Your task to perform on an android device: Search for "corsair k70" on walmart, select the first entry, add it to the cart, then select checkout. Image 0: 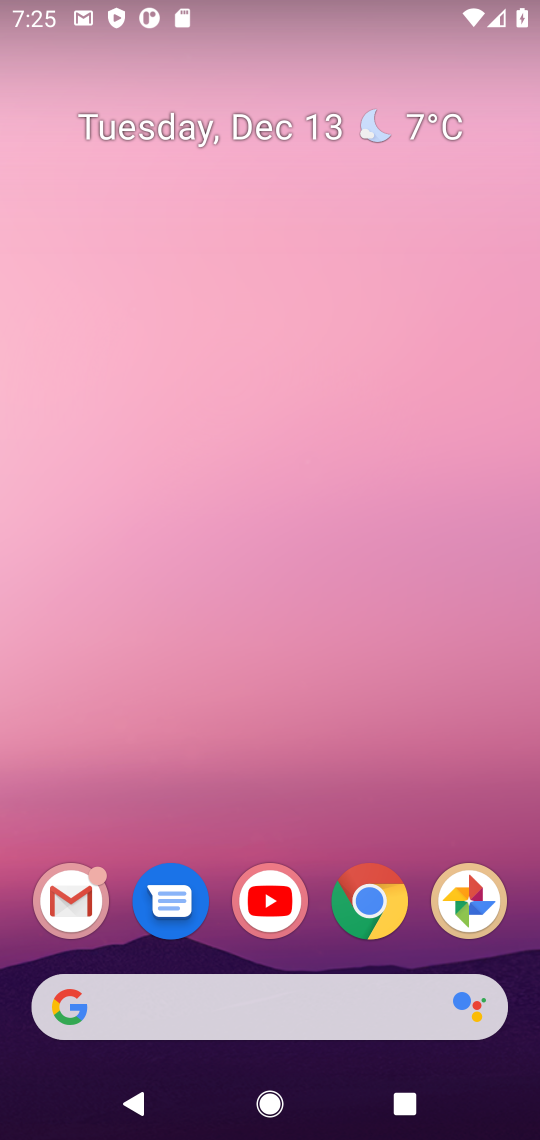
Step 0: click (361, 898)
Your task to perform on an android device: Search for "corsair k70" on walmart, select the first entry, add it to the cart, then select checkout. Image 1: 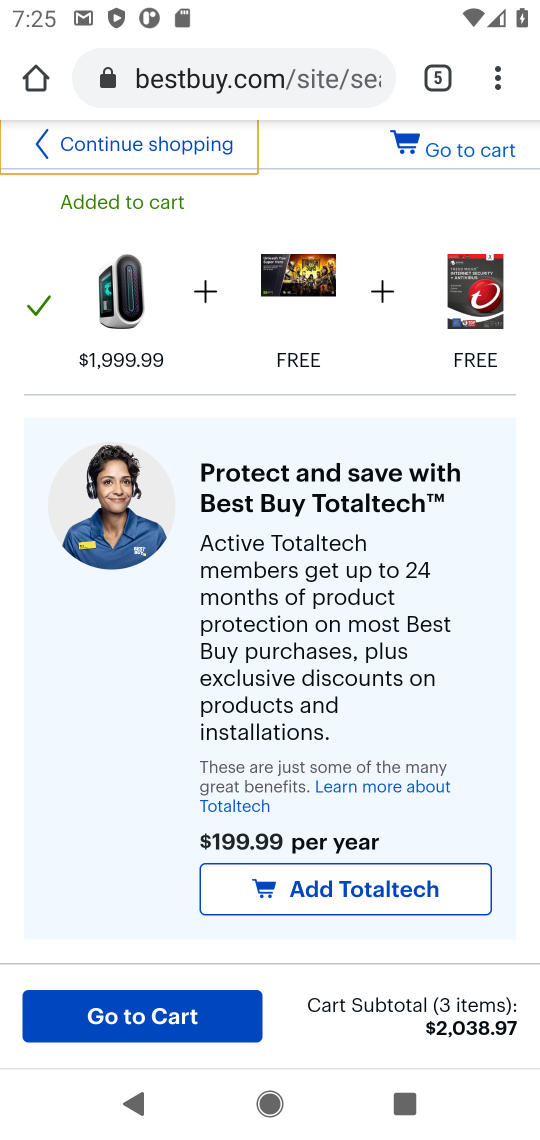
Step 1: click (445, 80)
Your task to perform on an android device: Search for "corsair k70" on walmart, select the first entry, add it to the cart, then select checkout. Image 2: 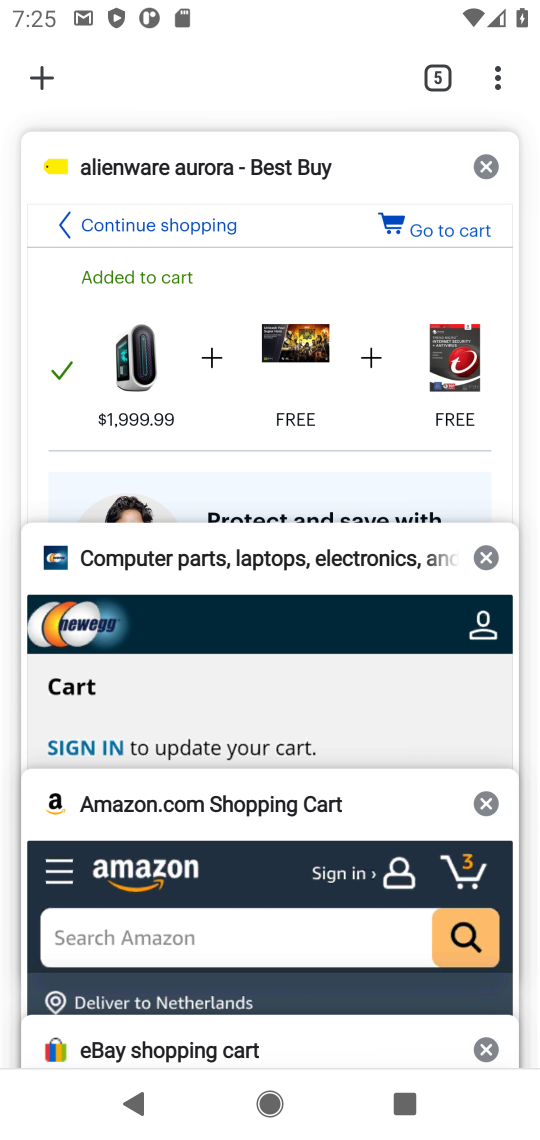
Step 2: click (37, 71)
Your task to perform on an android device: Search for "corsair k70" on walmart, select the first entry, add it to the cart, then select checkout. Image 3: 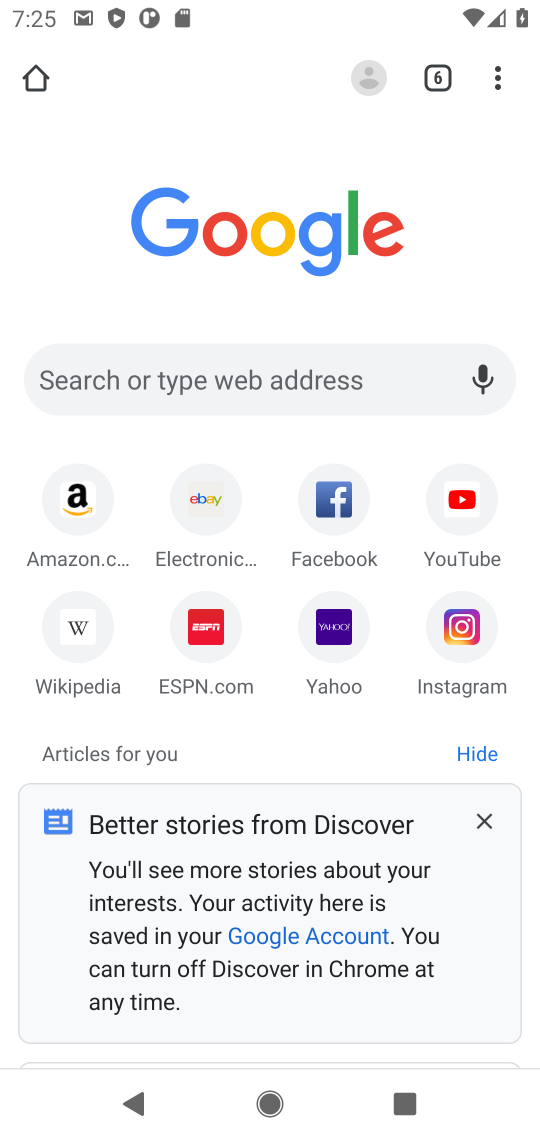
Step 3: click (288, 377)
Your task to perform on an android device: Search for "corsair k70" on walmart, select the first entry, add it to the cart, then select checkout. Image 4: 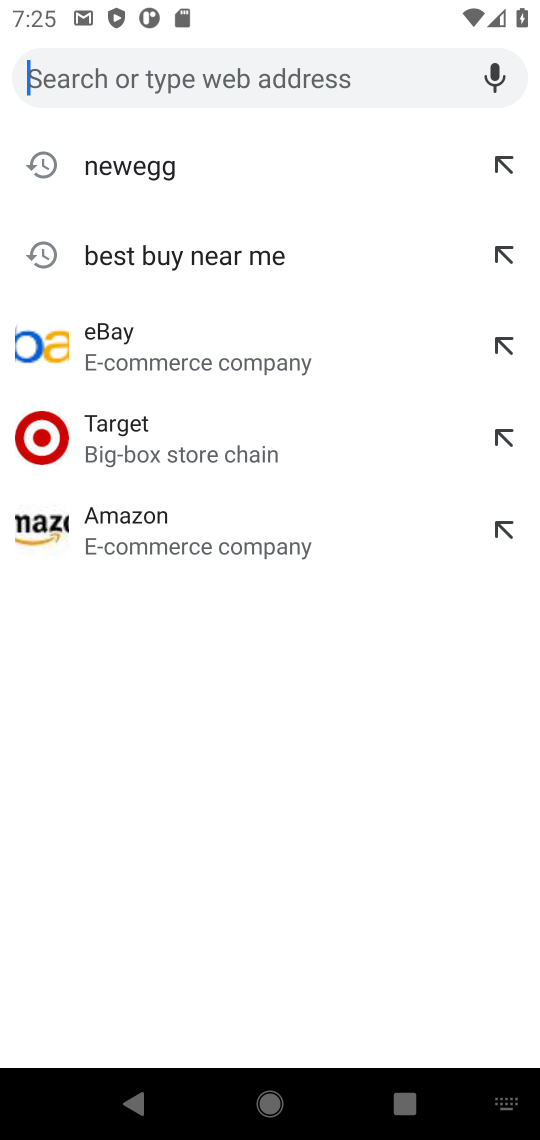
Step 4: type "walmaret"
Your task to perform on an android device: Search for "corsair k70" on walmart, select the first entry, add it to the cart, then select checkout. Image 5: 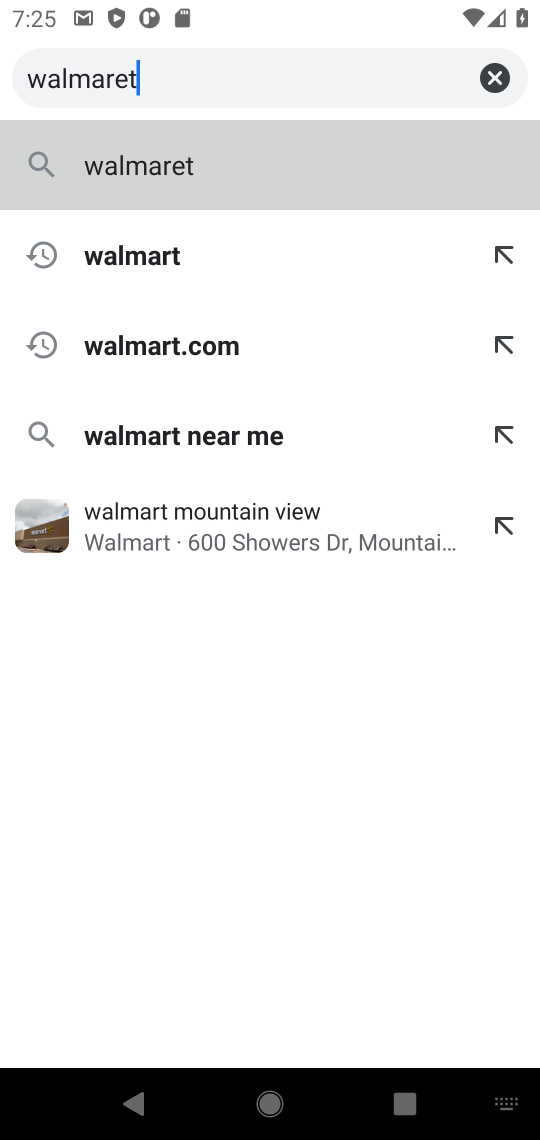
Step 5: click (133, 259)
Your task to perform on an android device: Search for "corsair k70" on walmart, select the first entry, add it to the cart, then select checkout. Image 6: 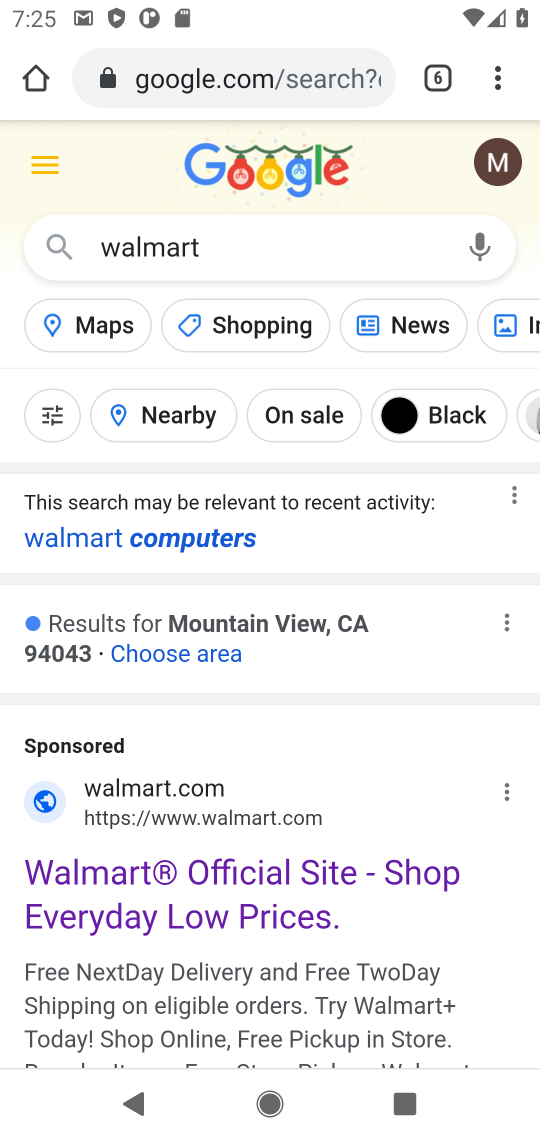
Step 6: click (436, 76)
Your task to perform on an android device: Search for "corsair k70" on walmart, select the first entry, add it to the cart, then select checkout. Image 7: 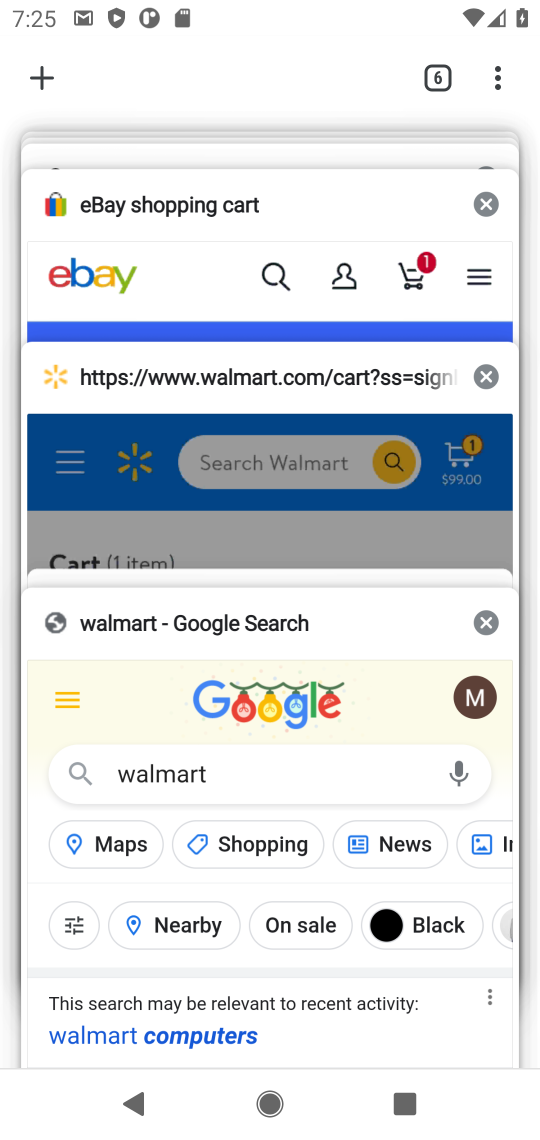
Step 7: click (497, 627)
Your task to perform on an android device: Search for "corsair k70" on walmart, select the first entry, add it to the cart, then select checkout. Image 8: 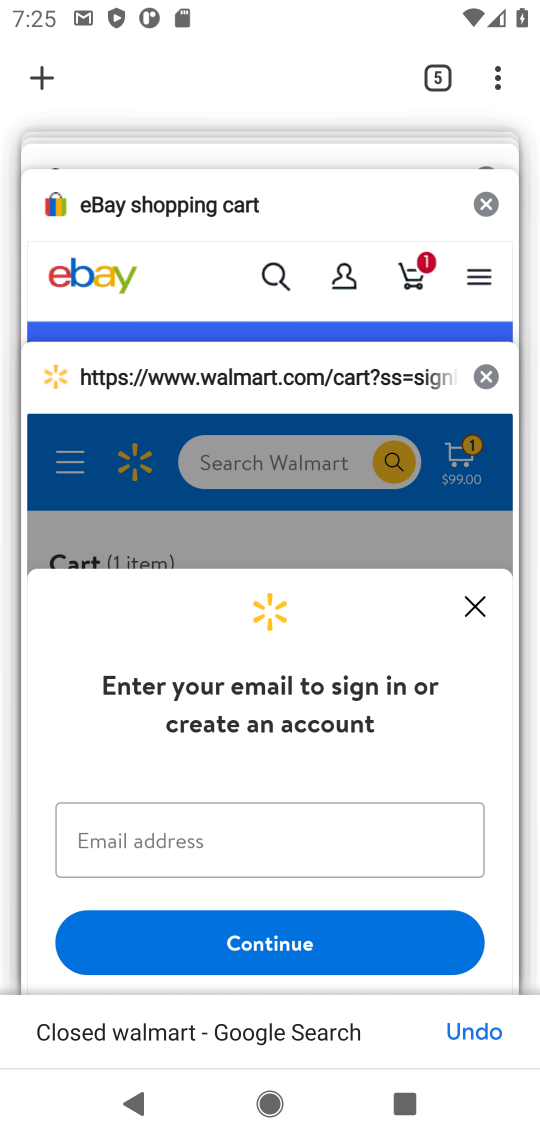
Step 8: click (308, 491)
Your task to perform on an android device: Search for "corsair k70" on walmart, select the first entry, add it to the cart, then select checkout. Image 9: 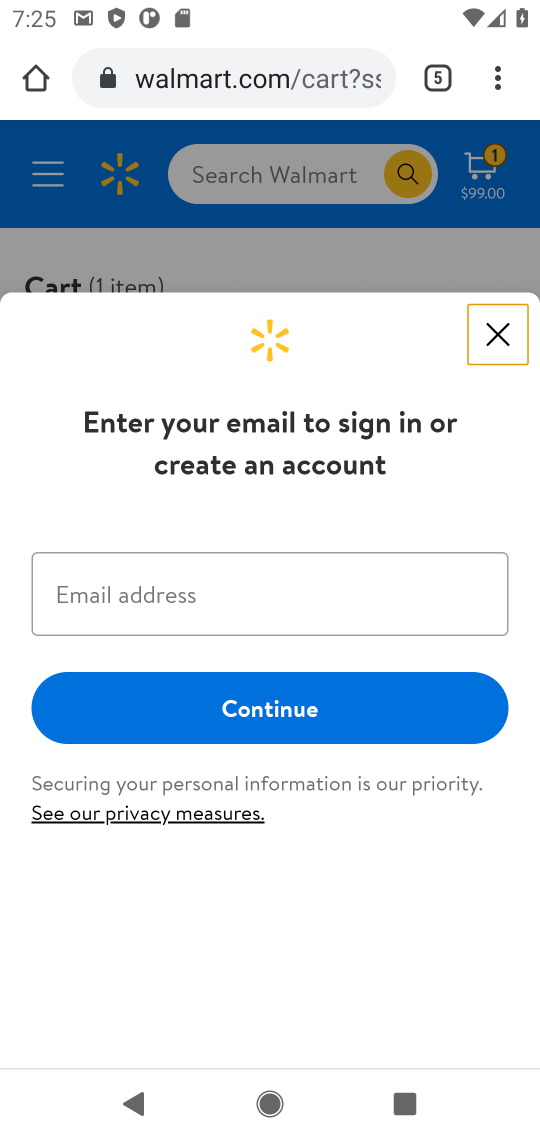
Step 9: click (498, 333)
Your task to perform on an android device: Search for "corsair k70" on walmart, select the first entry, add it to the cart, then select checkout. Image 10: 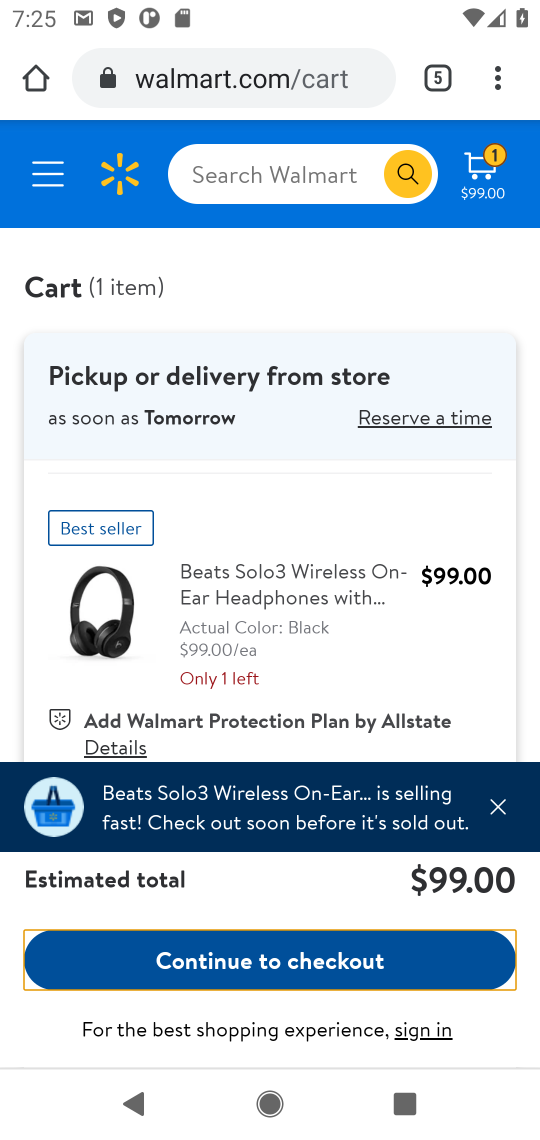
Step 10: click (291, 177)
Your task to perform on an android device: Search for "corsair k70" on walmart, select the first entry, add it to the cart, then select checkout. Image 11: 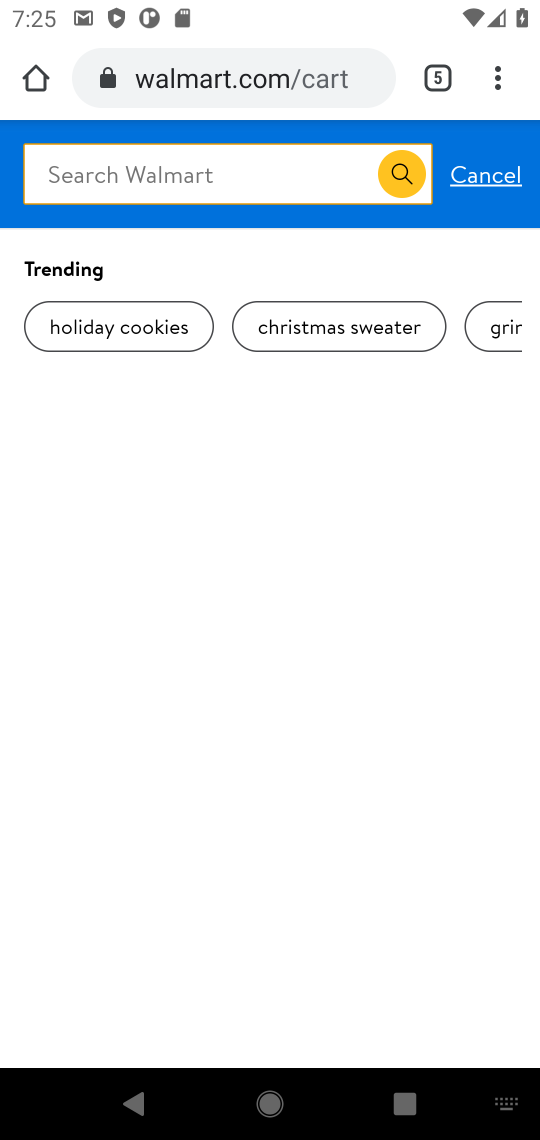
Step 11: type "corsair k70"
Your task to perform on an android device: Search for "corsair k70" on walmart, select the first entry, add it to the cart, then select checkout. Image 12: 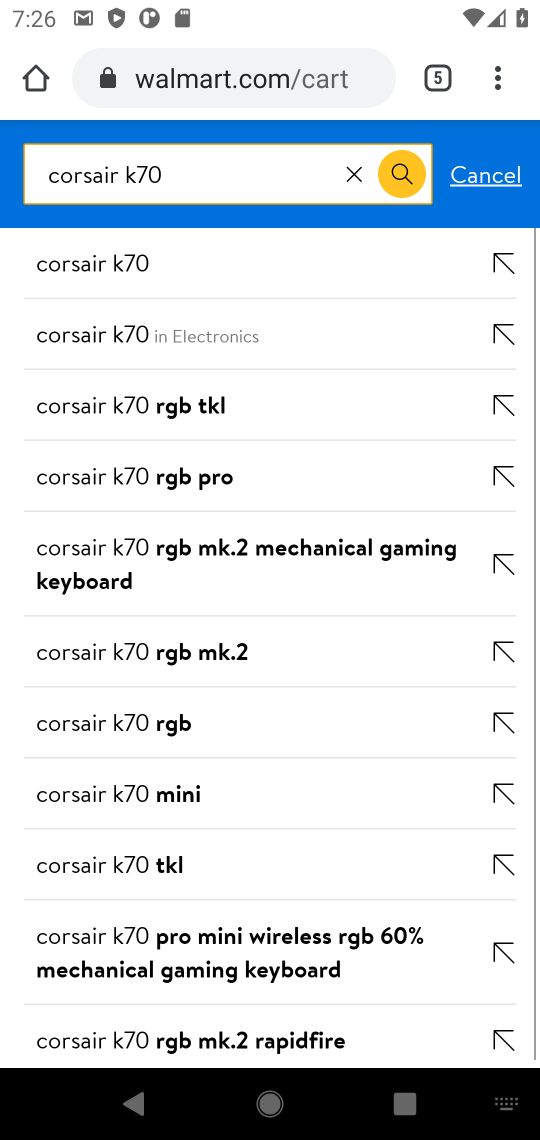
Step 12: click (116, 336)
Your task to perform on an android device: Search for "corsair k70" on walmart, select the first entry, add it to the cart, then select checkout. Image 13: 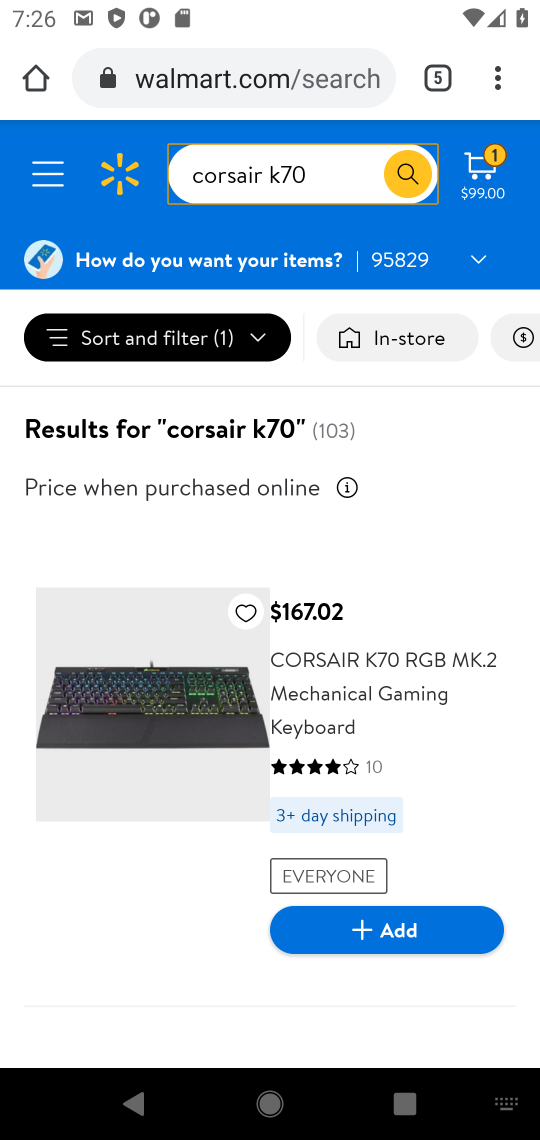
Step 13: click (387, 931)
Your task to perform on an android device: Search for "corsair k70" on walmart, select the first entry, add it to the cart, then select checkout. Image 14: 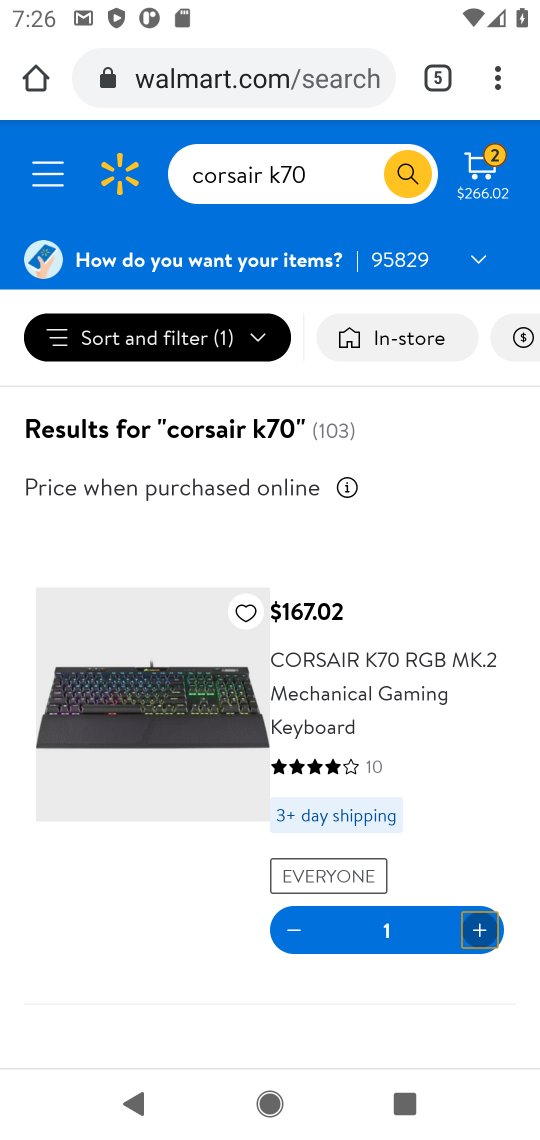
Step 14: click (485, 188)
Your task to perform on an android device: Search for "corsair k70" on walmart, select the first entry, add it to the cart, then select checkout. Image 15: 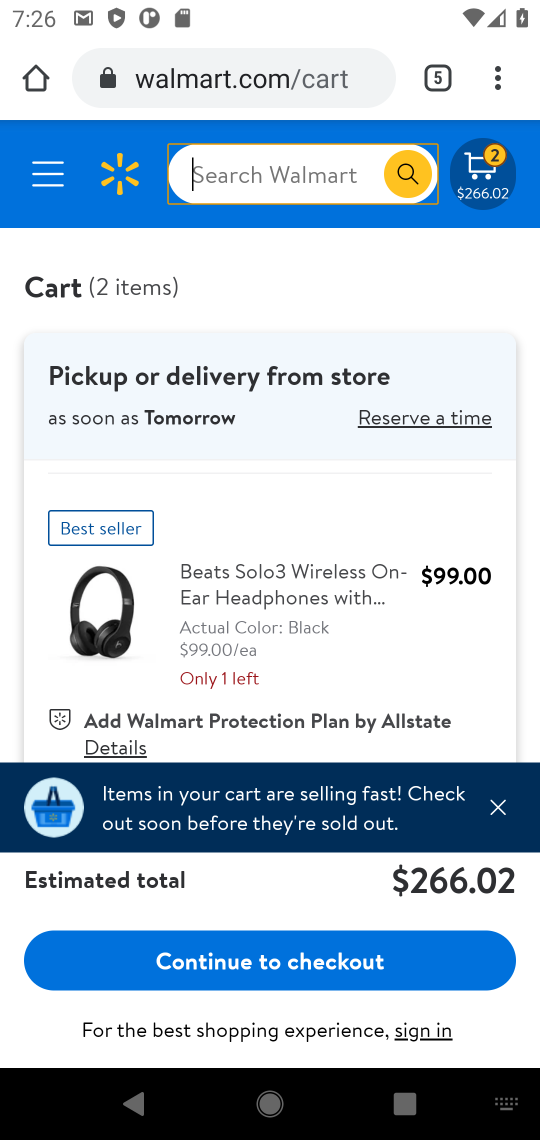
Step 15: click (279, 986)
Your task to perform on an android device: Search for "corsair k70" on walmart, select the first entry, add it to the cart, then select checkout. Image 16: 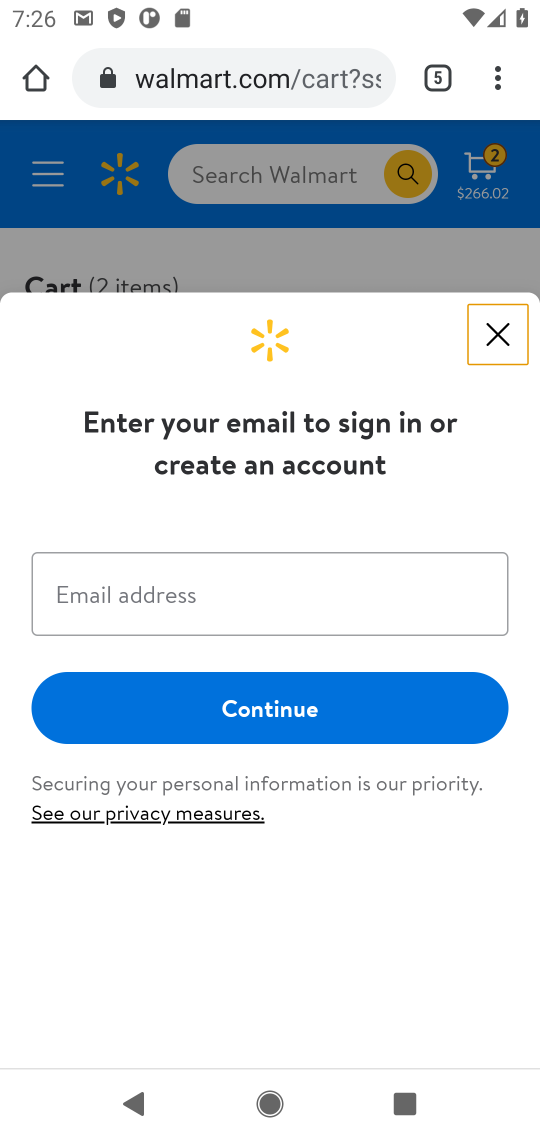
Step 16: click (479, 330)
Your task to perform on an android device: Search for "corsair k70" on walmart, select the first entry, add it to the cart, then select checkout. Image 17: 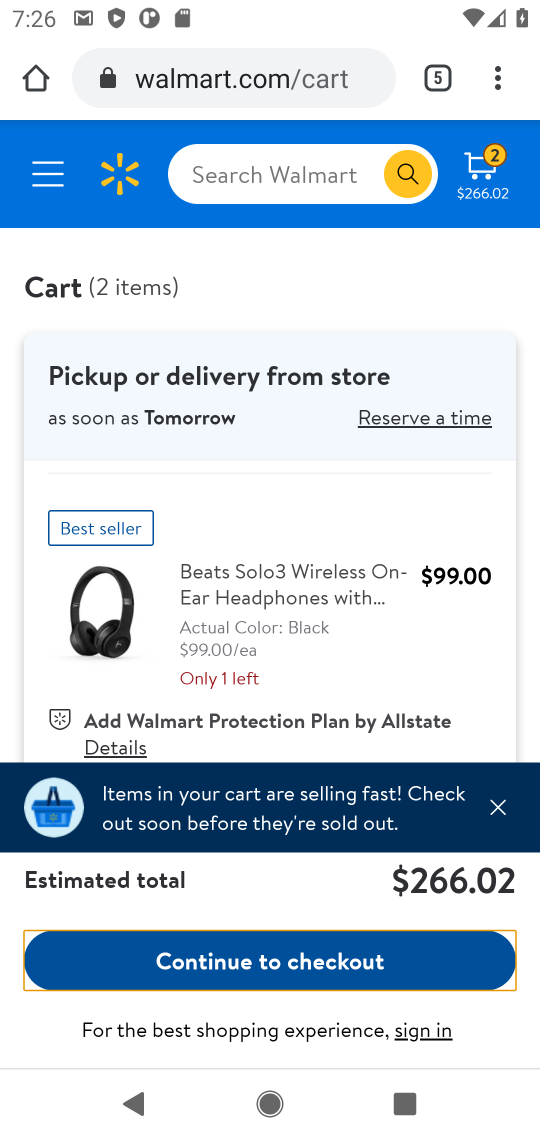
Step 17: task complete